Your task to perform on an android device: delete the emails in spam in the gmail app Image 0: 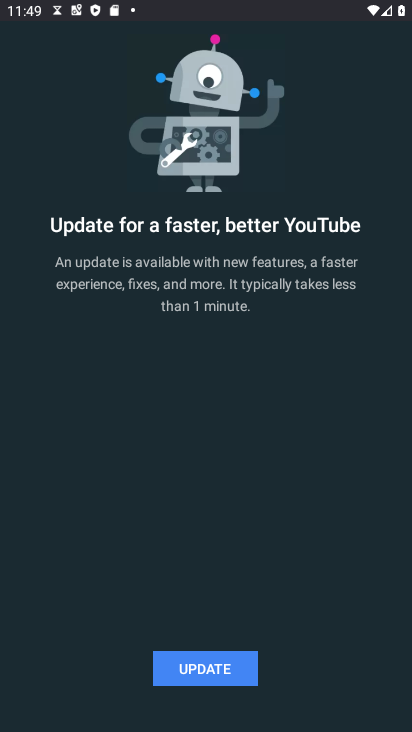
Step 0: press home button
Your task to perform on an android device: delete the emails in spam in the gmail app Image 1: 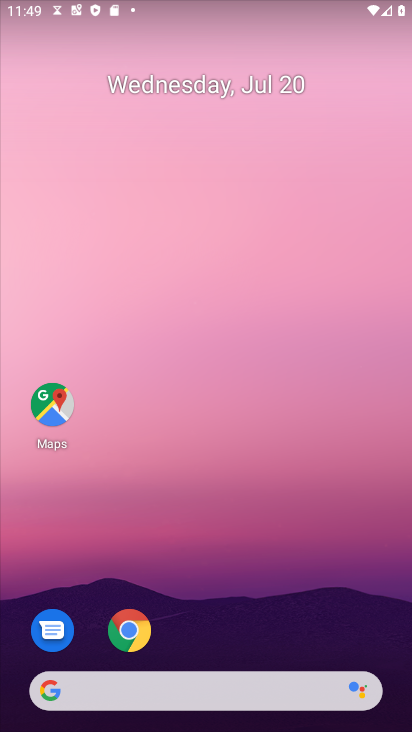
Step 1: drag from (19, 662) to (240, 169)
Your task to perform on an android device: delete the emails in spam in the gmail app Image 2: 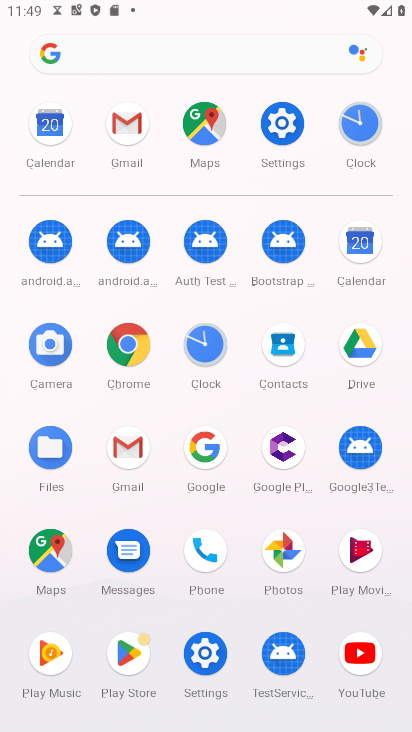
Step 2: click (134, 461)
Your task to perform on an android device: delete the emails in spam in the gmail app Image 3: 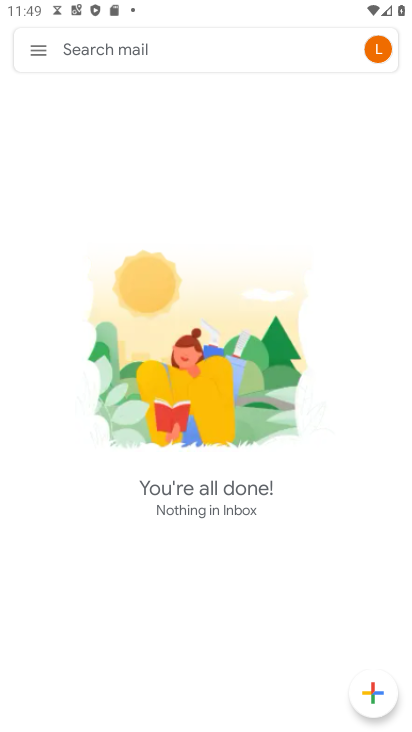
Step 3: click (43, 49)
Your task to perform on an android device: delete the emails in spam in the gmail app Image 4: 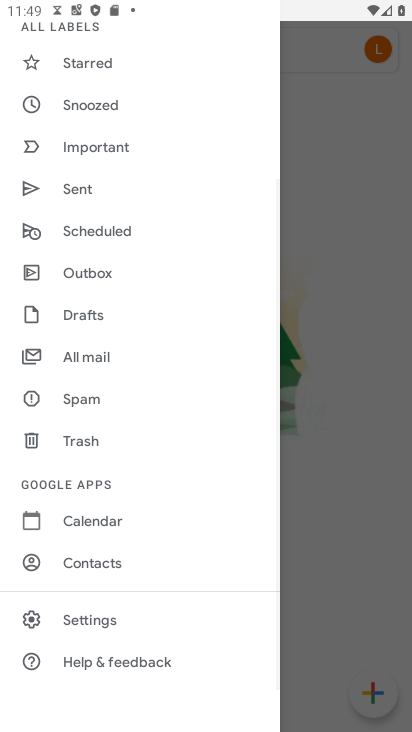
Step 4: click (77, 391)
Your task to perform on an android device: delete the emails in spam in the gmail app Image 5: 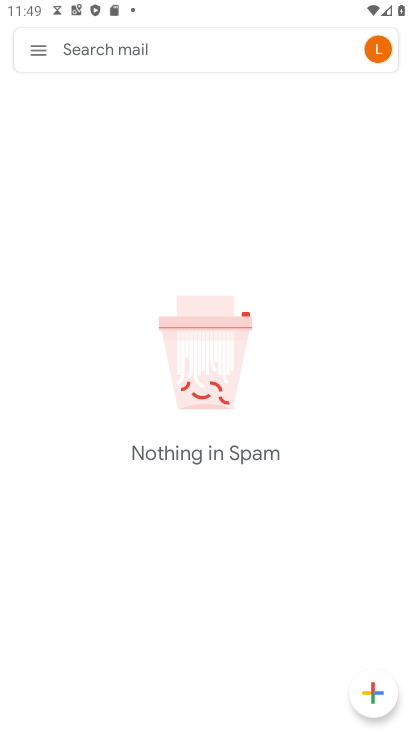
Step 5: task complete